Your task to perform on an android device: change the clock display to analog Image 0: 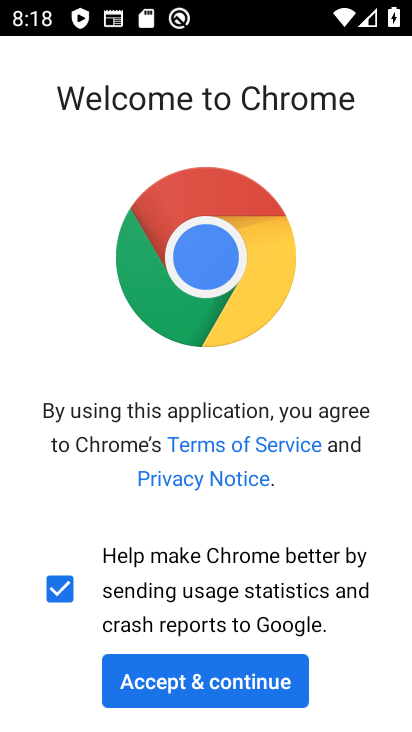
Step 0: press home button
Your task to perform on an android device: change the clock display to analog Image 1: 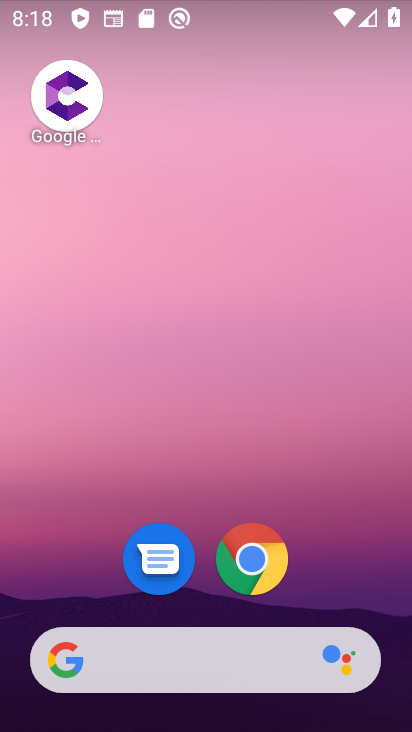
Step 1: drag from (29, 649) to (224, 185)
Your task to perform on an android device: change the clock display to analog Image 2: 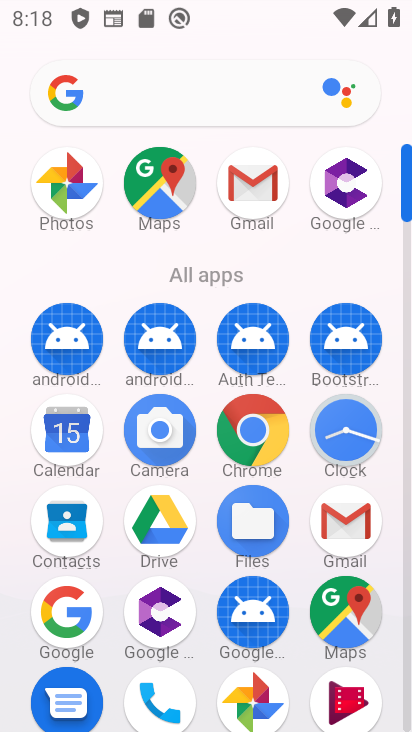
Step 2: click (331, 443)
Your task to perform on an android device: change the clock display to analog Image 3: 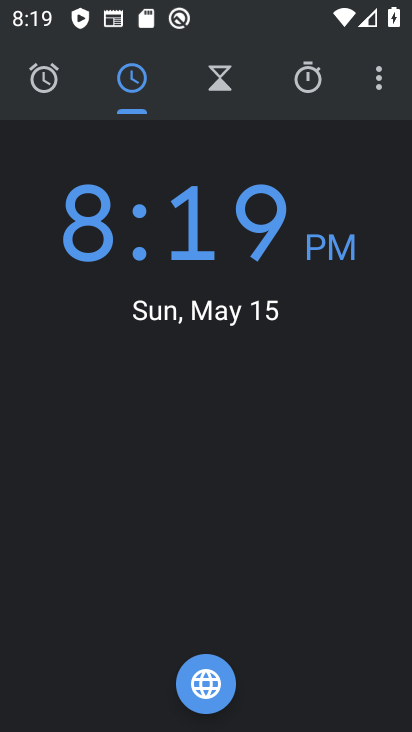
Step 3: click (366, 75)
Your task to perform on an android device: change the clock display to analog Image 4: 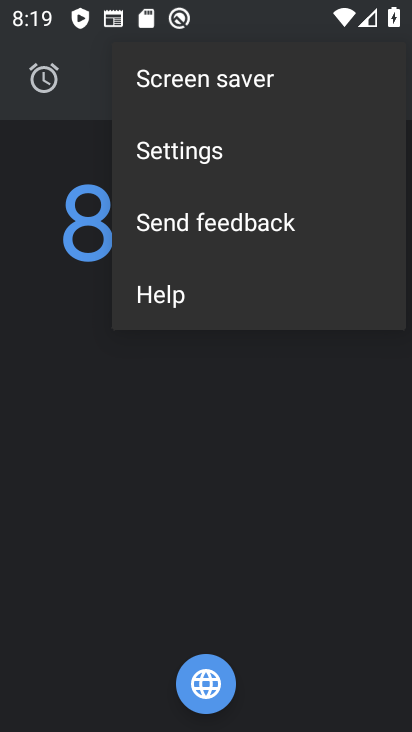
Step 4: click (247, 173)
Your task to perform on an android device: change the clock display to analog Image 5: 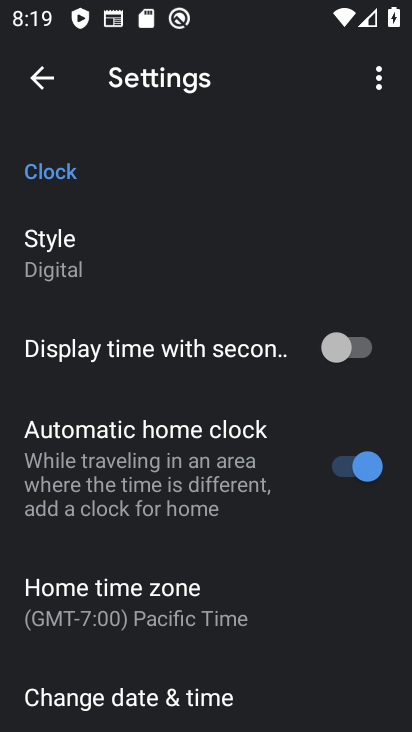
Step 5: click (50, 263)
Your task to perform on an android device: change the clock display to analog Image 6: 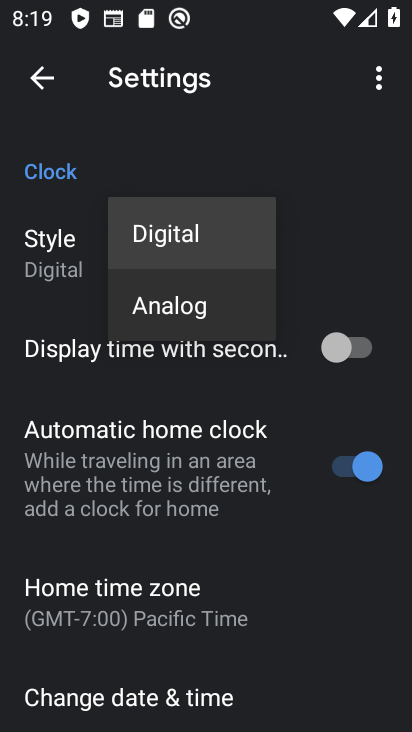
Step 6: click (167, 322)
Your task to perform on an android device: change the clock display to analog Image 7: 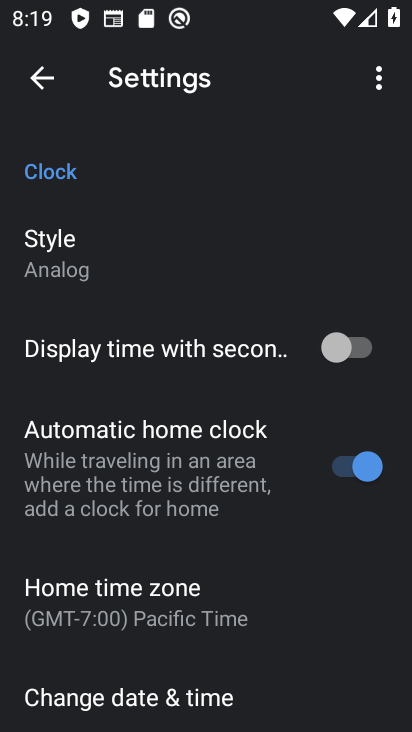
Step 7: task complete